Your task to perform on an android device: delete browsing data in the chrome app Image 0: 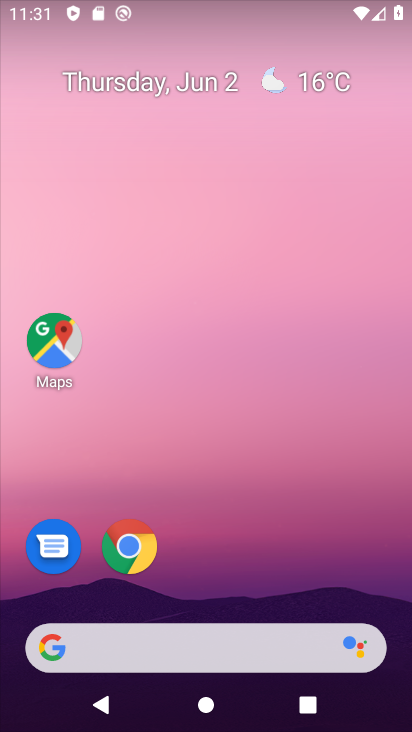
Step 0: click (129, 547)
Your task to perform on an android device: delete browsing data in the chrome app Image 1: 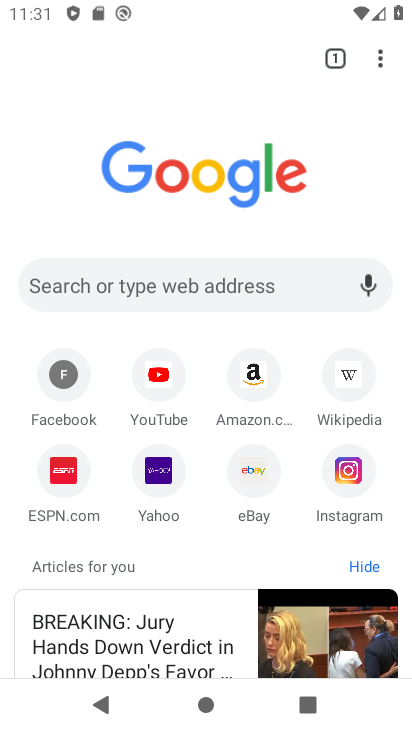
Step 1: click (380, 54)
Your task to perform on an android device: delete browsing data in the chrome app Image 2: 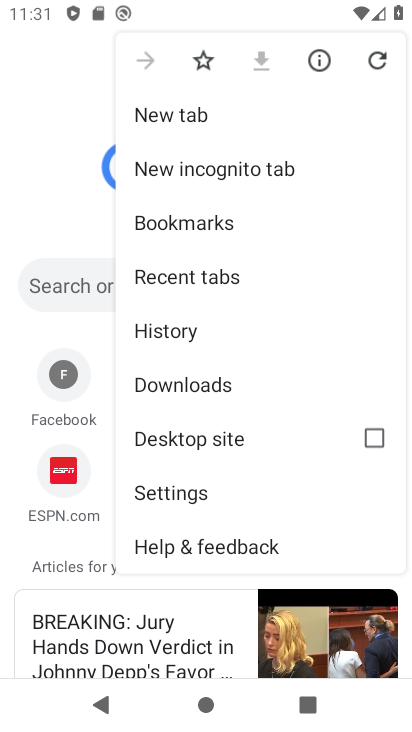
Step 2: click (182, 338)
Your task to perform on an android device: delete browsing data in the chrome app Image 3: 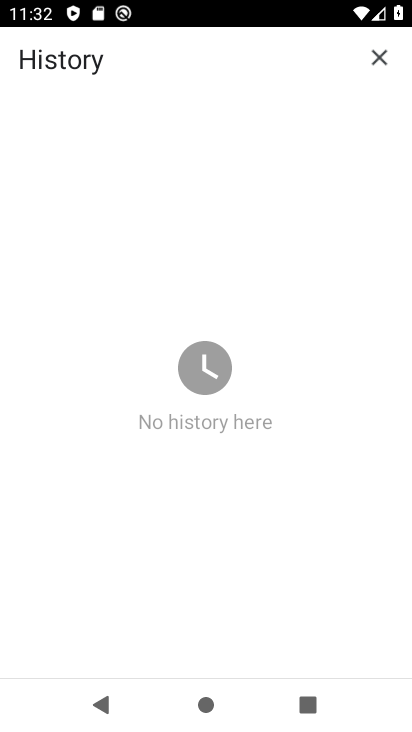
Step 3: task complete